Your task to perform on an android device: change your default location settings in chrome Image 0: 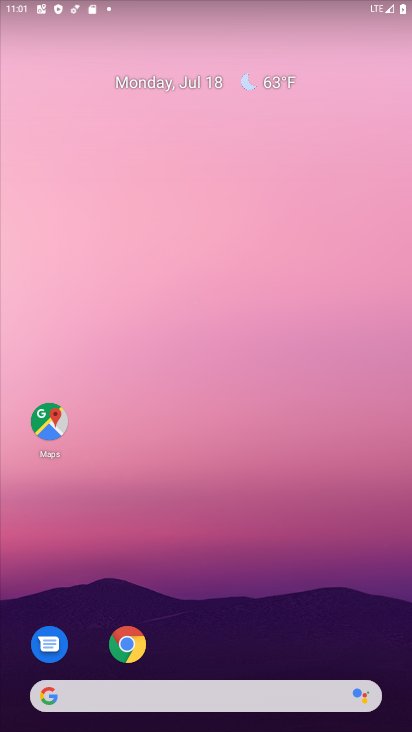
Step 0: click (119, 641)
Your task to perform on an android device: change your default location settings in chrome Image 1: 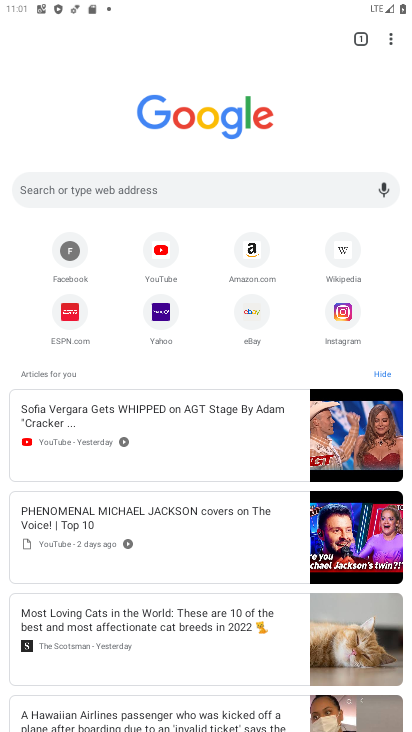
Step 1: click (387, 36)
Your task to perform on an android device: change your default location settings in chrome Image 2: 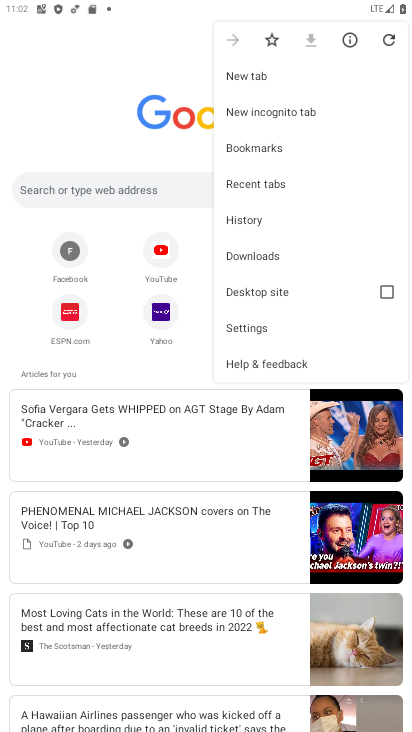
Step 2: click (250, 323)
Your task to perform on an android device: change your default location settings in chrome Image 3: 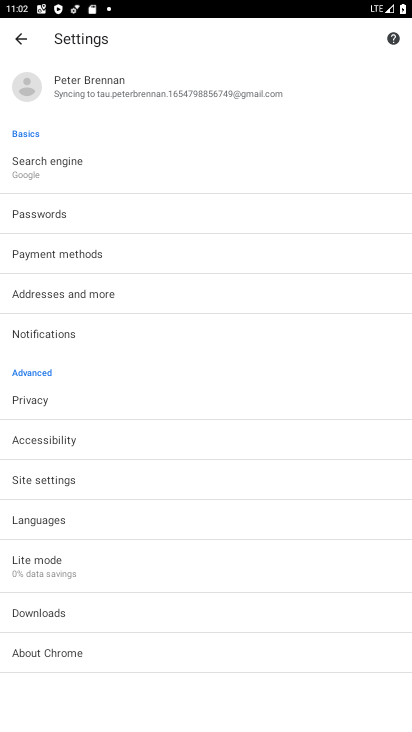
Step 3: click (96, 484)
Your task to perform on an android device: change your default location settings in chrome Image 4: 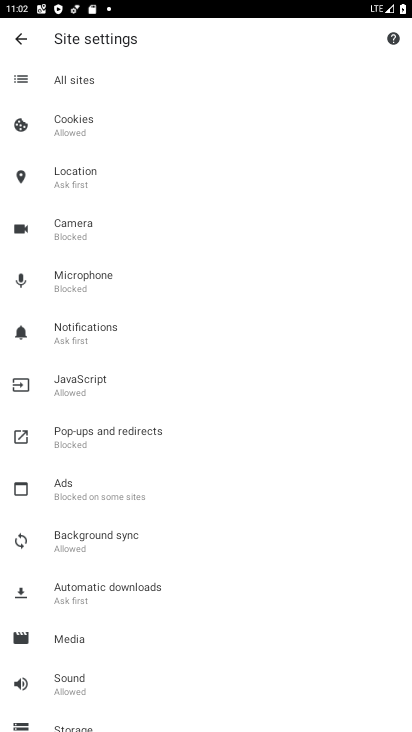
Step 4: click (90, 164)
Your task to perform on an android device: change your default location settings in chrome Image 5: 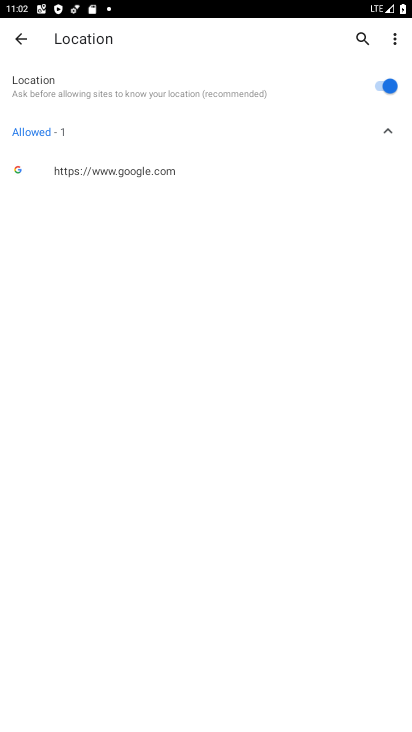
Step 5: click (393, 85)
Your task to perform on an android device: change your default location settings in chrome Image 6: 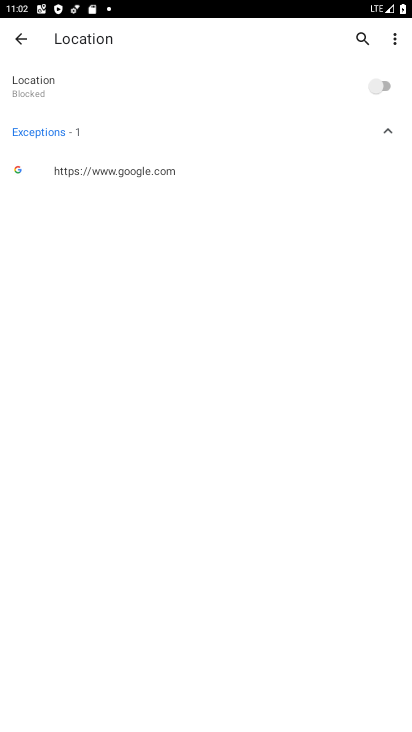
Step 6: task complete